Your task to perform on an android device: Search for Italian restaurants on Maps Image 0: 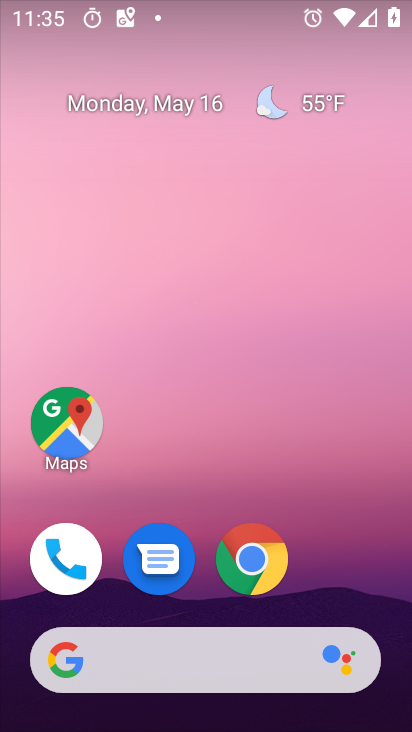
Step 0: click (72, 424)
Your task to perform on an android device: Search for Italian restaurants on Maps Image 1: 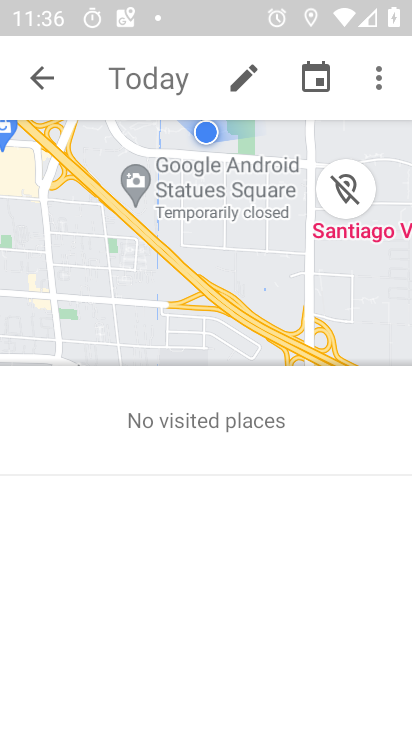
Step 1: click (54, 81)
Your task to perform on an android device: Search for Italian restaurants on Maps Image 2: 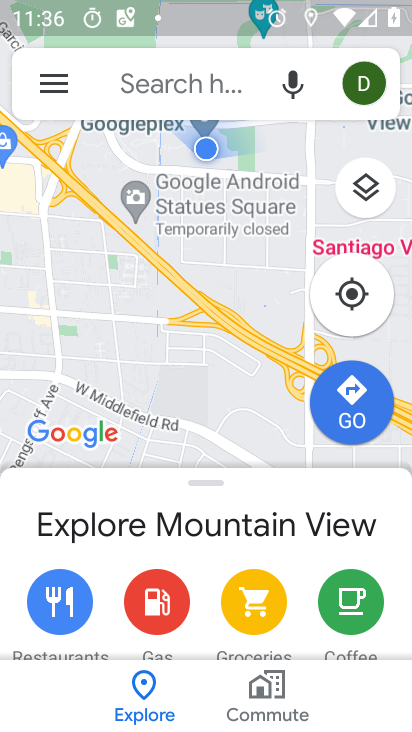
Step 2: click (156, 84)
Your task to perform on an android device: Search for Italian restaurants on Maps Image 3: 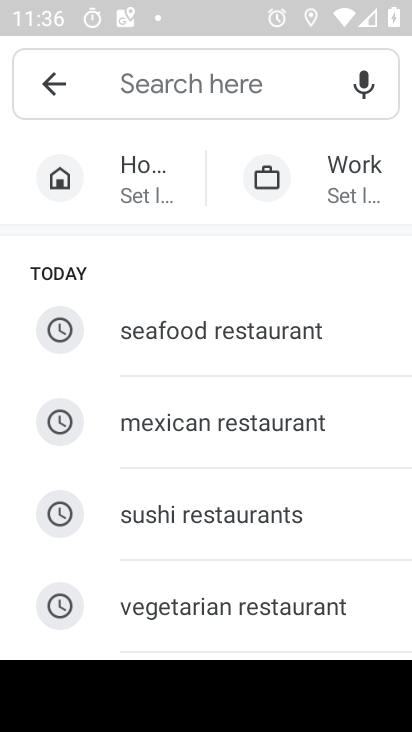
Step 3: type "Italian restaurants"
Your task to perform on an android device: Search for Italian restaurants on Maps Image 4: 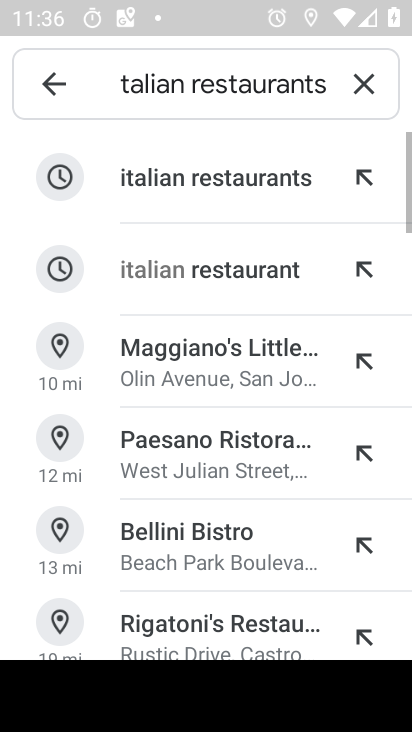
Step 4: click (279, 188)
Your task to perform on an android device: Search for Italian restaurants on Maps Image 5: 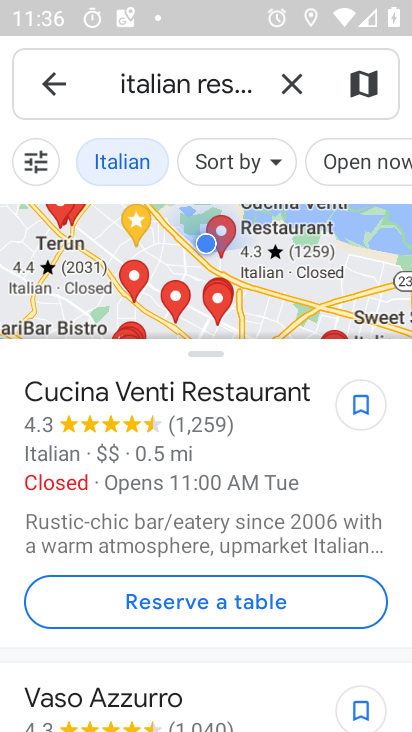
Step 5: task complete